Your task to perform on an android device: check battery use Image 0: 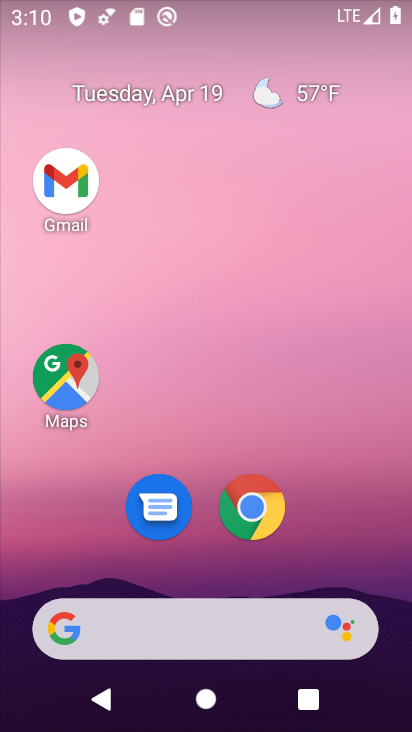
Step 0: drag from (294, 459) to (342, 135)
Your task to perform on an android device: check battery use Image 1: 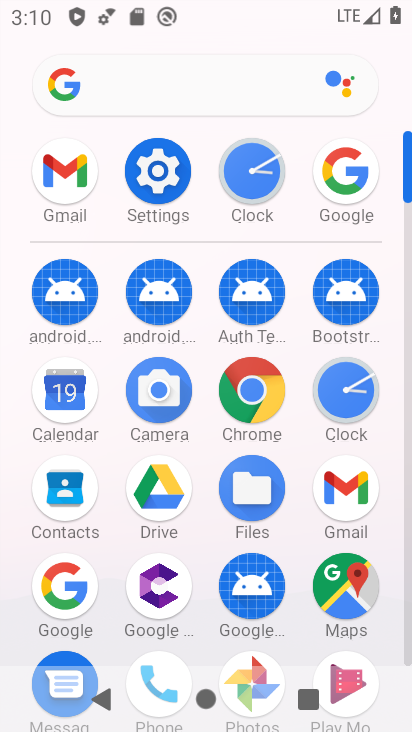
Step 1: click (163, 188)
Your task to perform on an android device: check battery use Image 2: 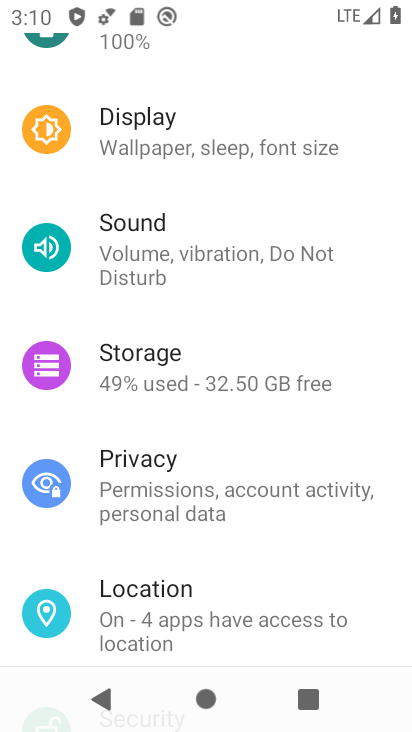
Step 2: drag from (264, 500) to (307, 723)
Your task to perform on an android device: check battery use Image 3: 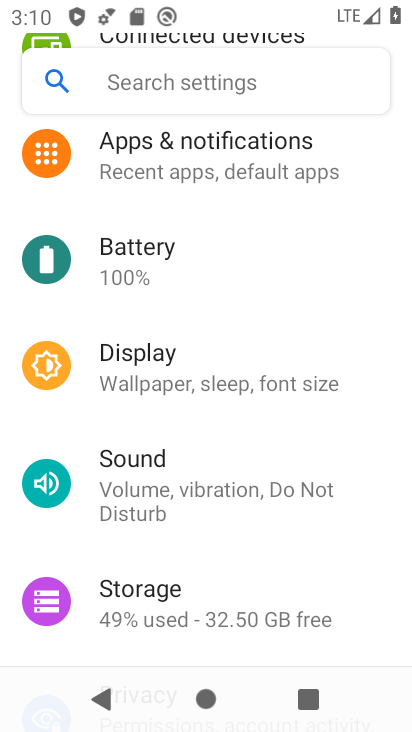
Step 3: click (203, 249)
Your task to perform on an android device: check battery use Image 4: 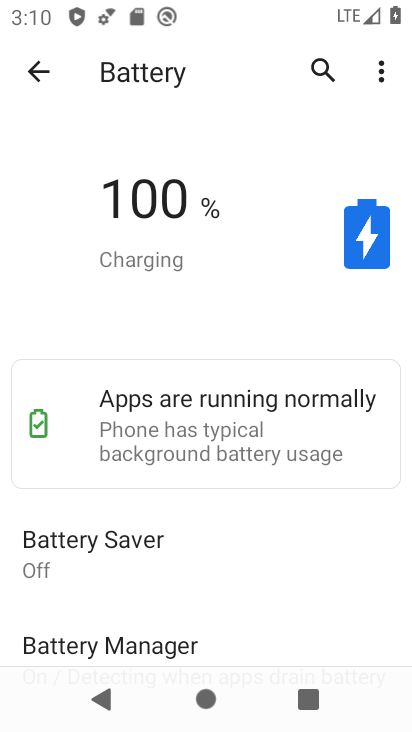
Step 4: click (380, 65)
Your task to perform on an android device: check battery use Image 5: 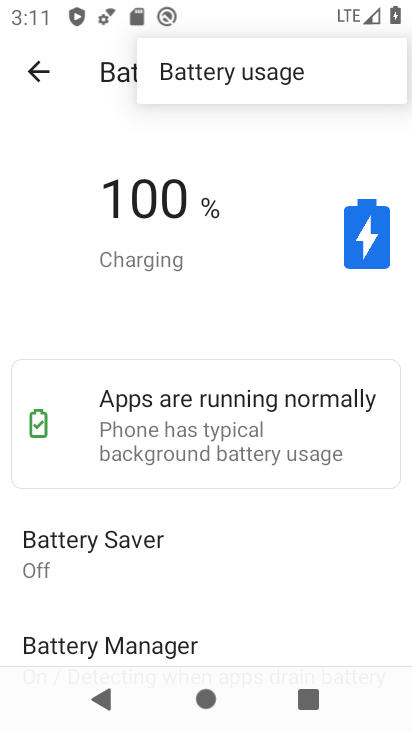
Step 5: click (305, 86)
Your task to perform on an android device: check battery use Image 6: 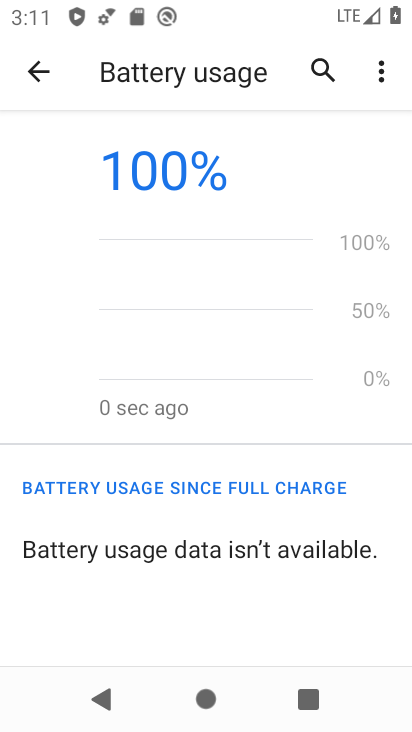
Step 6: task complete